Your task to perform on an android device: uninstall "Adobe Acrobat Reader" Image 0: 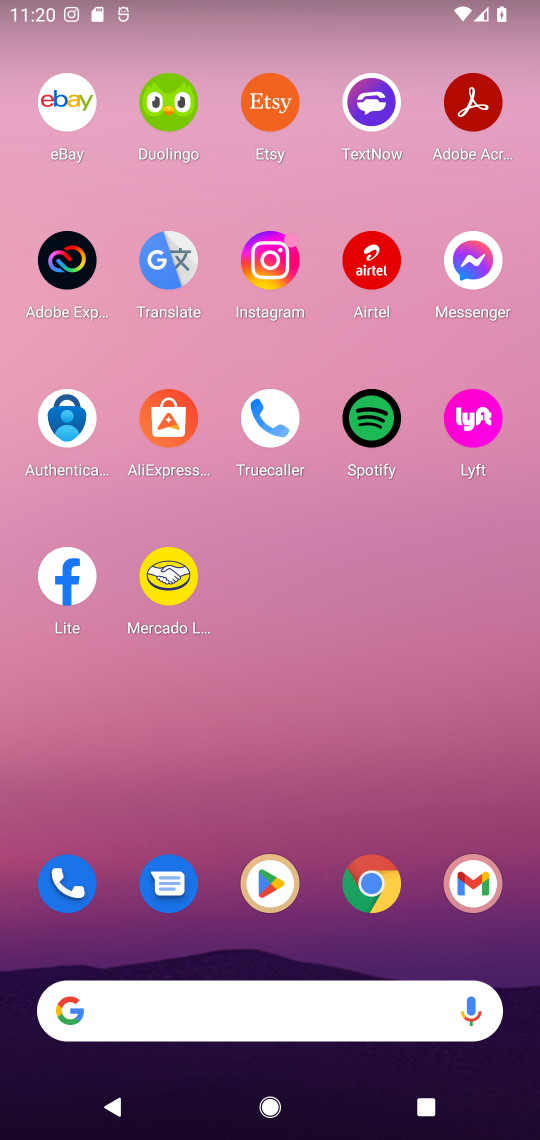
Step 0: drag from (319, 893) to (306, 29)
Your task to perform on an android device: uninstall "Adobe Acrobat Reader" Image 1: 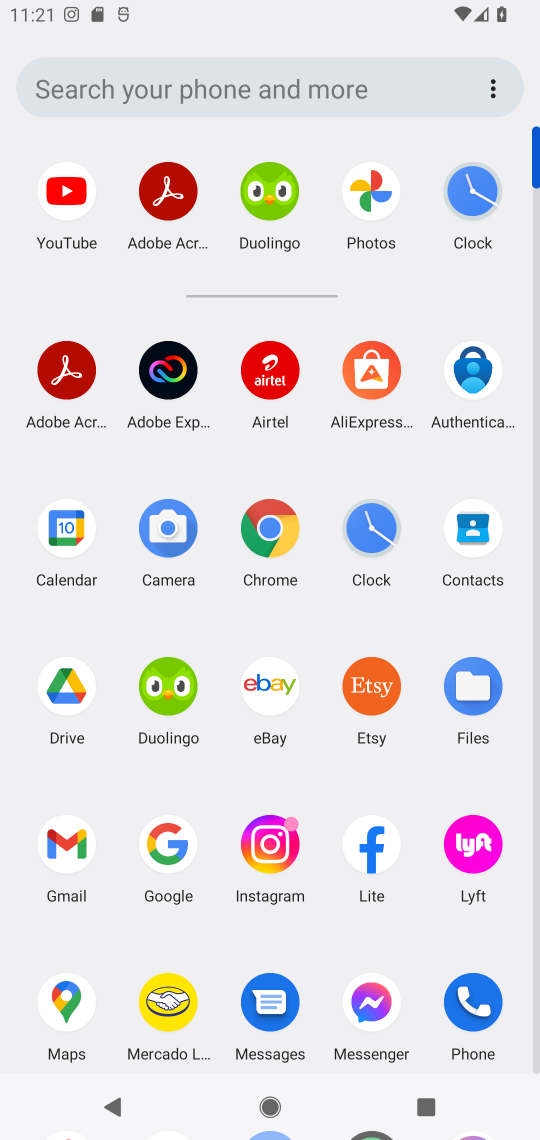
Step 1: drag from (317, 867) to (324, 414)
Your task to perform on an android device: uninstall "Adobe Acrobat Reader" Image 2: 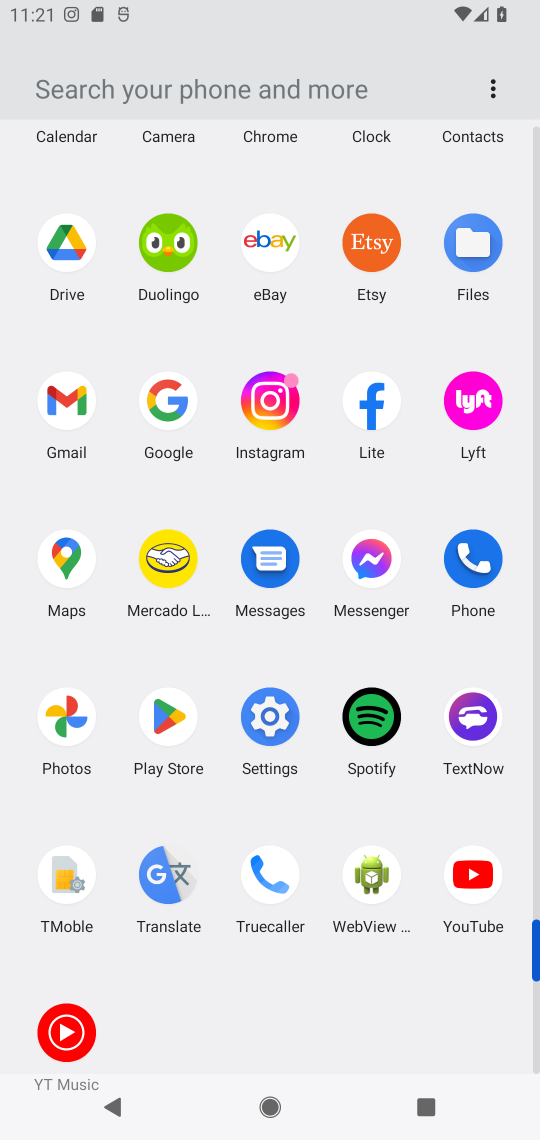
Step 2: click (165, 716)
Your task to perform on an android device: uninstall "Adobe Acrobat Reader" Image 3: 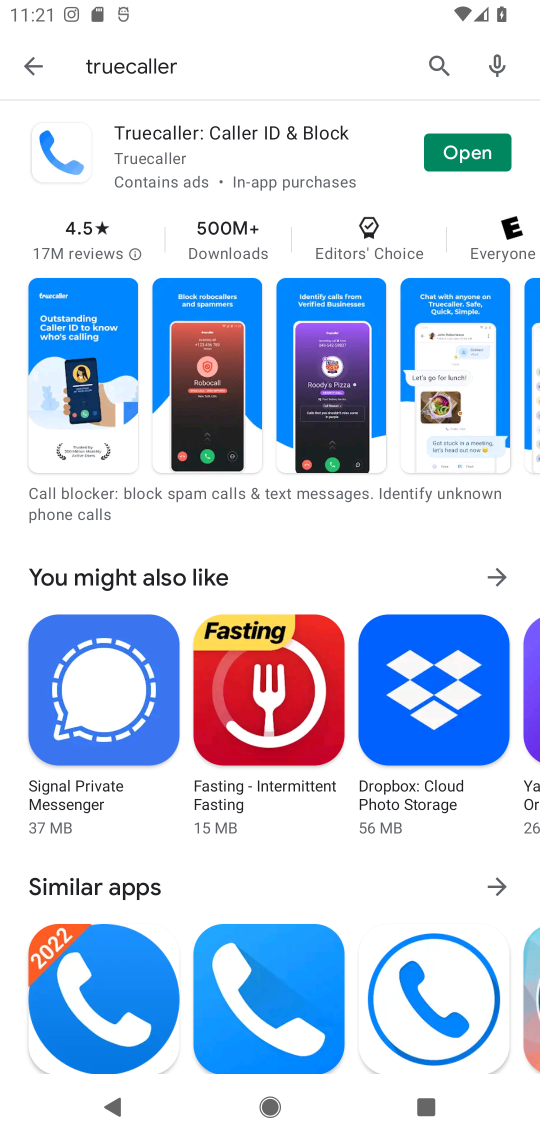
Step 3: click (433, 58)
Your task to perform on an android device: uninstall "Adobe Acrobat Reader" Image 4: 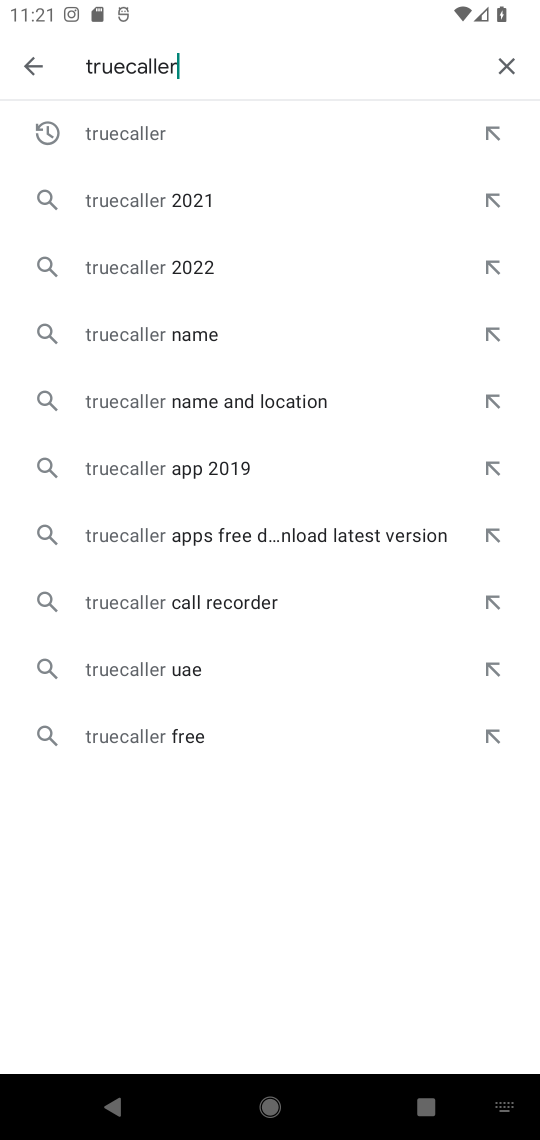
Step 4: click (508, 54)
Your task to perform on an android device: uninstall "Adobe Acrobat Reader" Image 5: 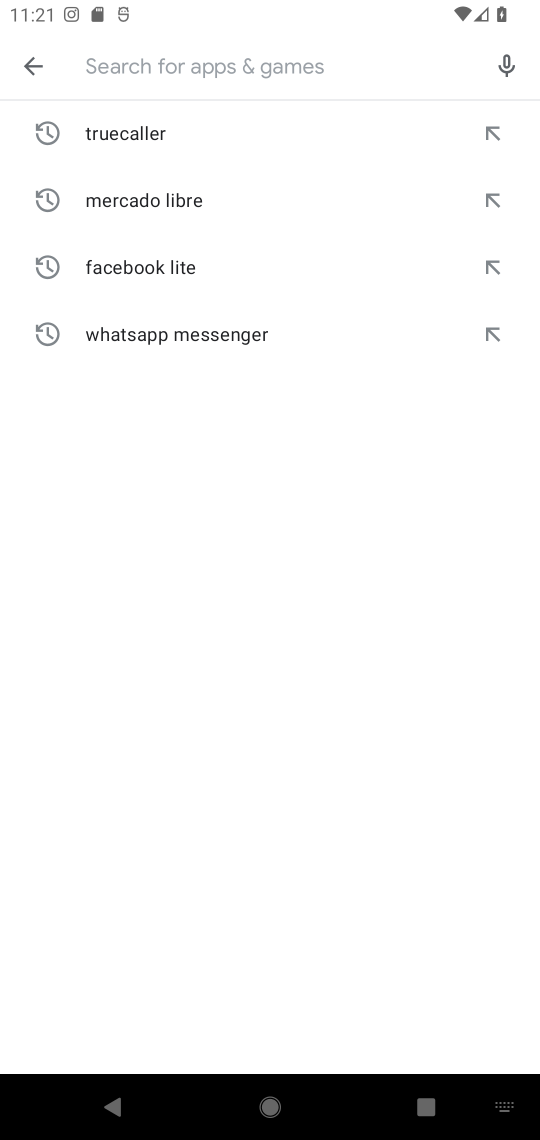
Step 5: type "Adobe Acrobat Reader"
Your task to perform on an android device: uninstall "Adobe Acrobat Reader" Image 6: 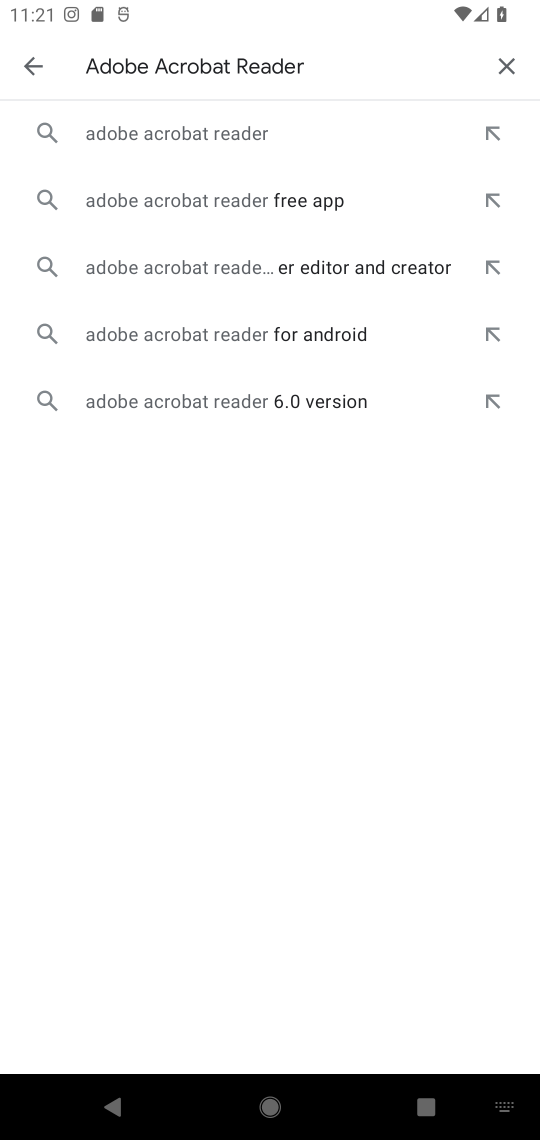
Step 6: click (154, 131)
Your task to perform on an android device: uninstall "Adobe Acrobat Reader" Image 7: 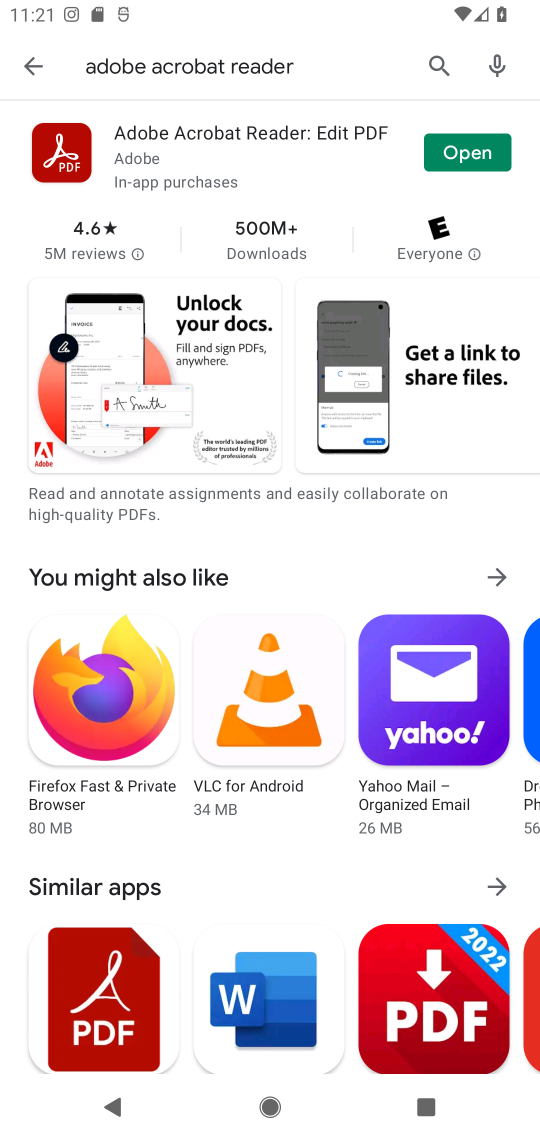
Step 7: click (172, 158)
Your task to perform on an android device: uninstall "Adobe Acrobat Reader" Image 8: 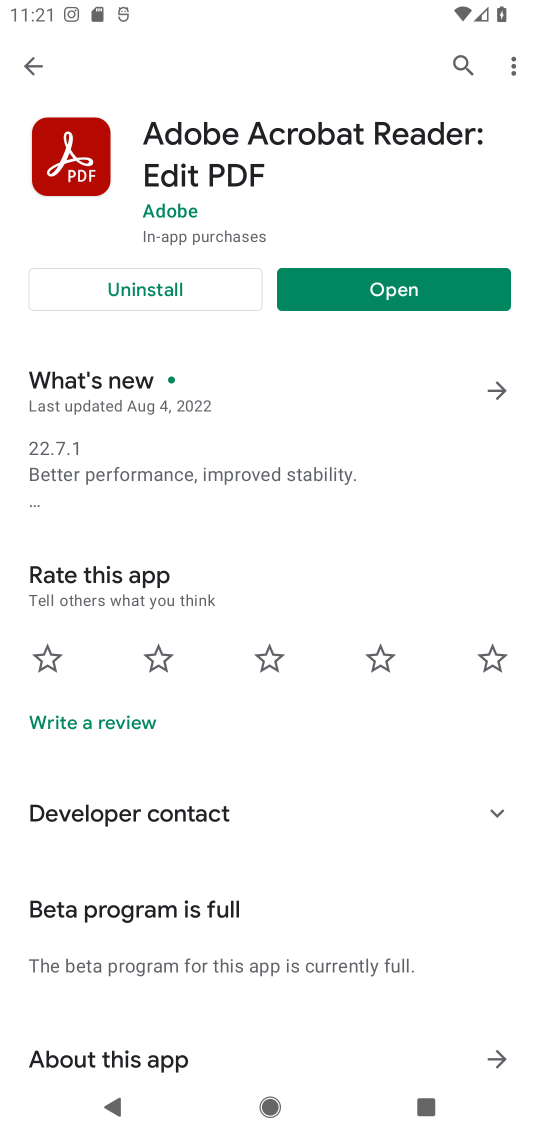
Step 8: click (161, 289)
Your task to perform on an android device: uninstall "Adobe Acrobat Reader" Image 9: 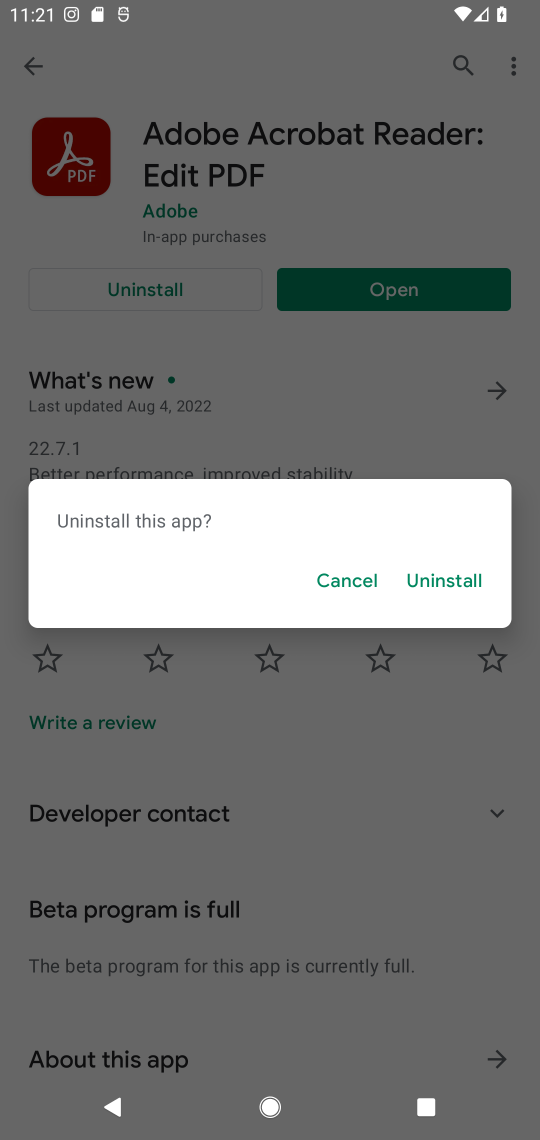
Step 9: click (448, 579)
Your task to perform on an android device: uninstall "Adobe Acrobat Reader" Image 10: 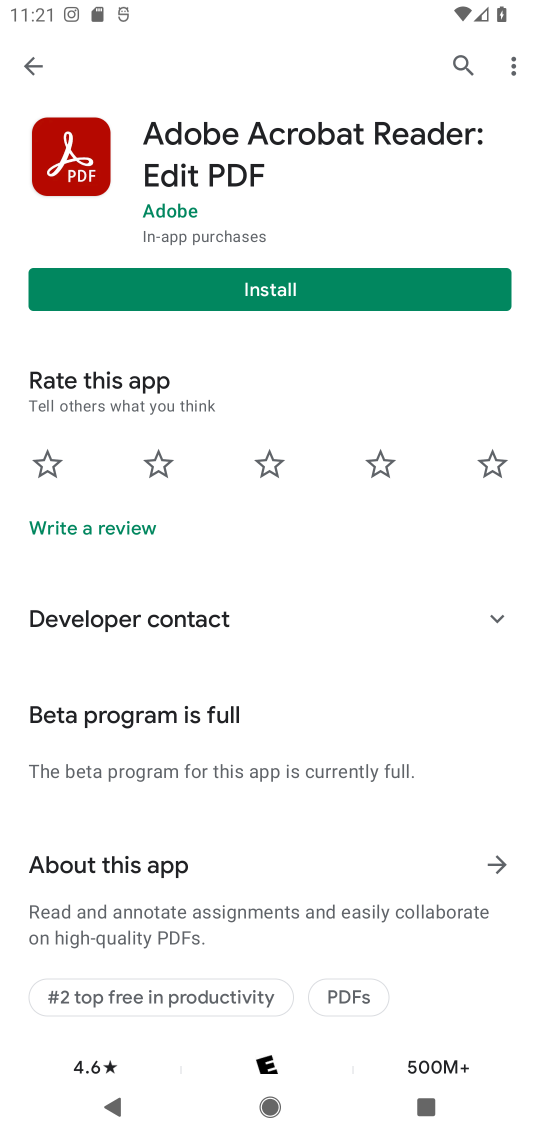
Step 10: task complete